Your task to perform on an android device: Go to Reddit.com Image 0: 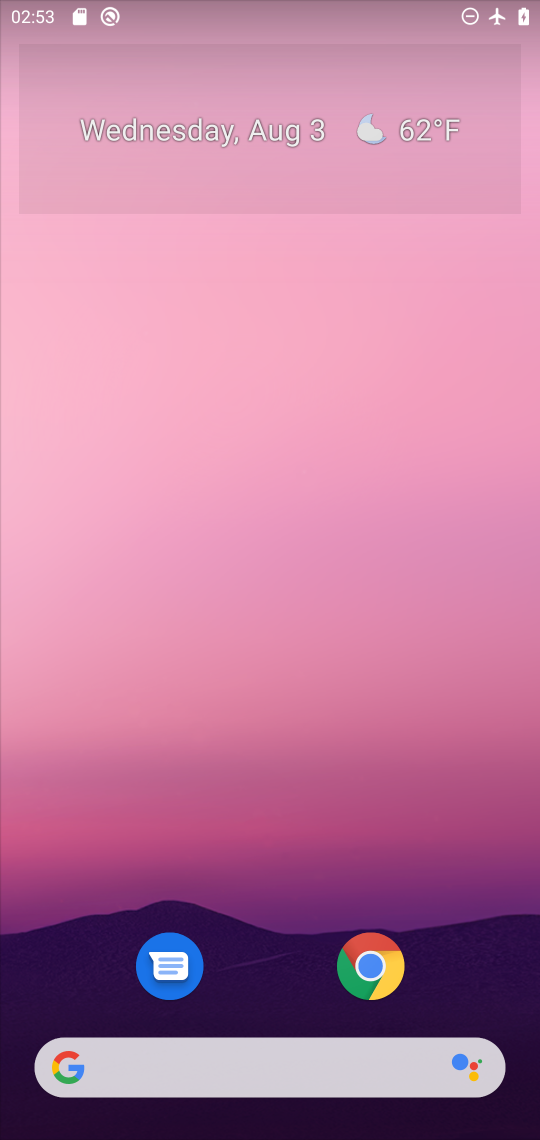
Step 0: click (378, 970)
Your task to perform on an android device: Go to Reddit.com Image 1: 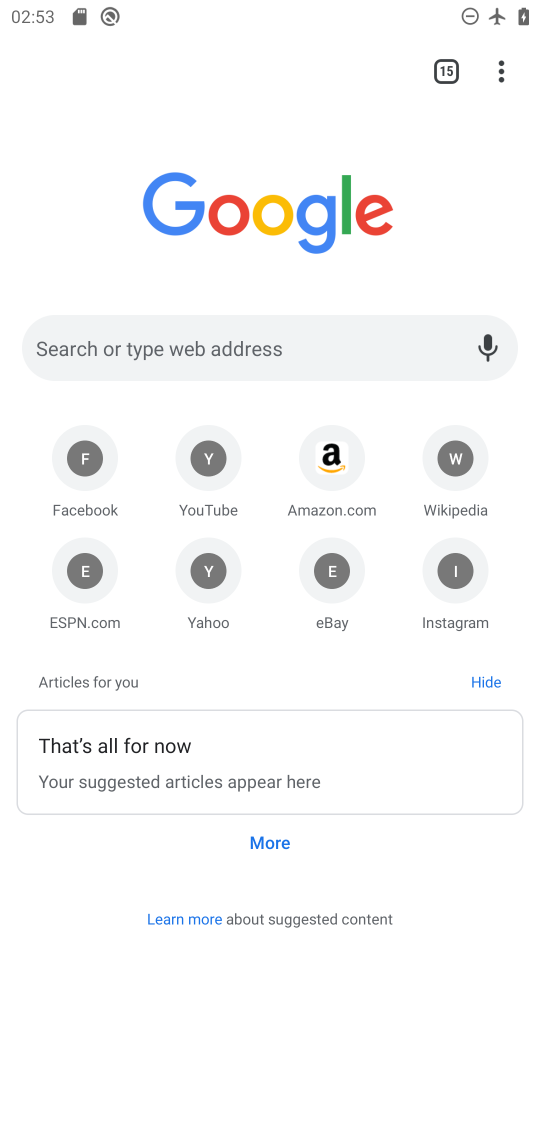
Step 1: click (175, 337)
Your task to perform on an android device: Go to Reddit.com Image 2: 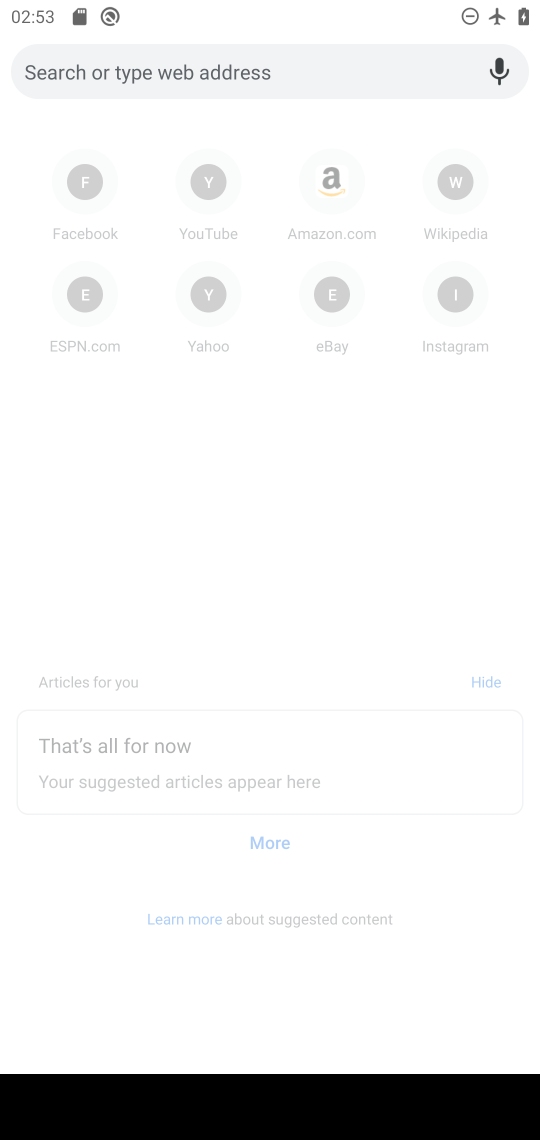
Step 2: type "Reddit.com"
Your task to perform on an android device: Go to Reddit.com Image 3: 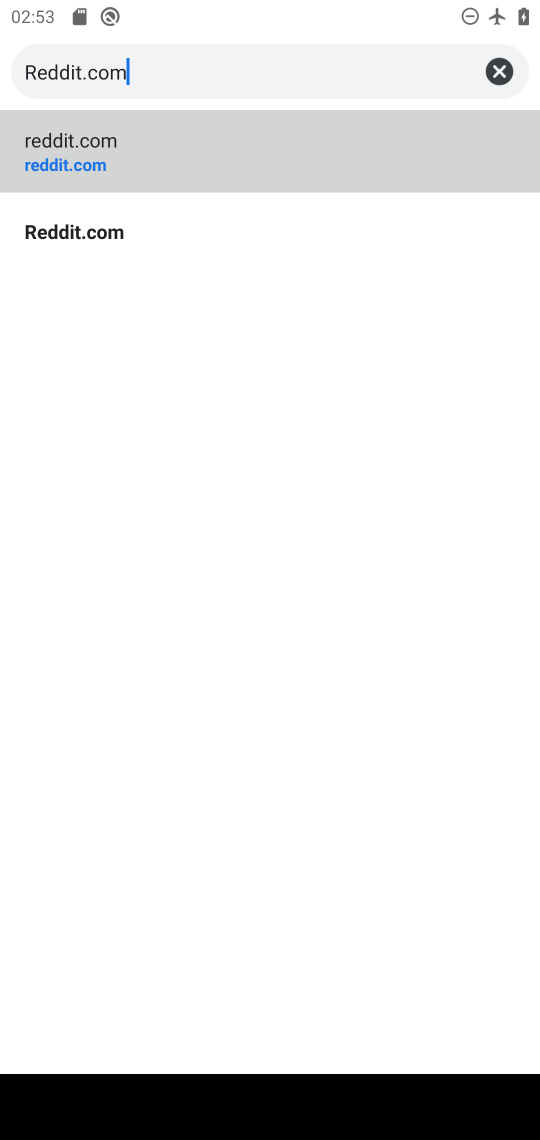
Step 3: click (173, 179)
Your task to perform on an android device: Go to Reddit.com Image 4: 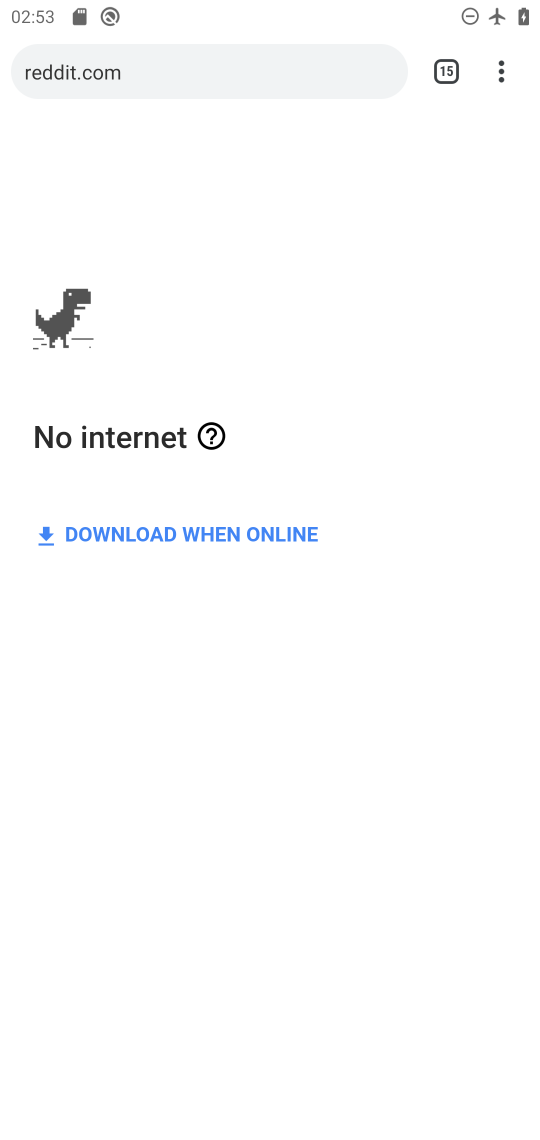
Step 4: task complete